Your task to perform on an android device: Open settings on Google Maps Image 0: 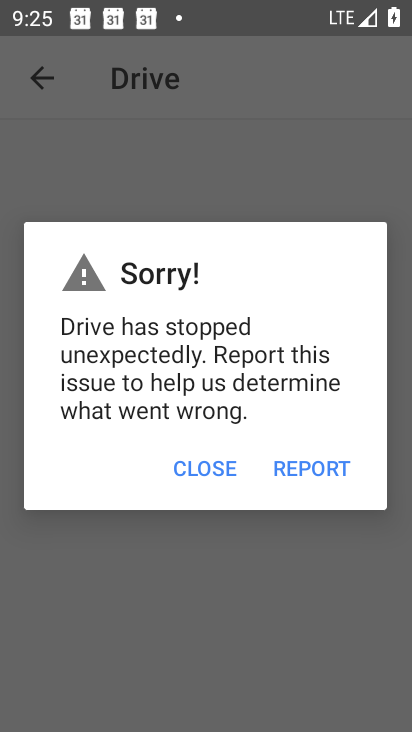
Step 0: press home button
Your task to perform on an android device: Open settings on Google Maps Image 1: 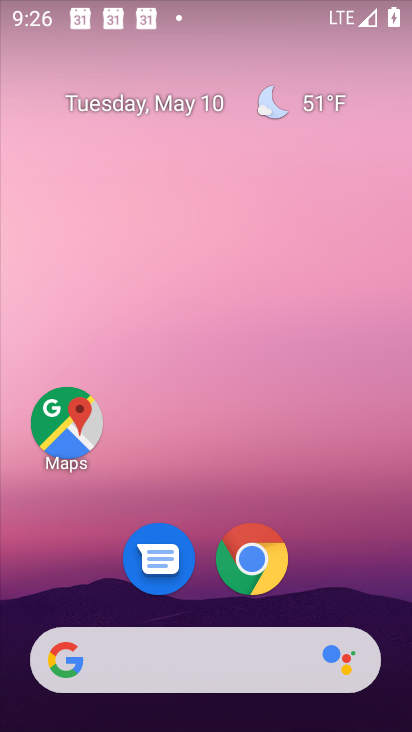
Step 1: click (67, 428)
Your task to perform on an android device: Open settings on Google Maps Image 2: 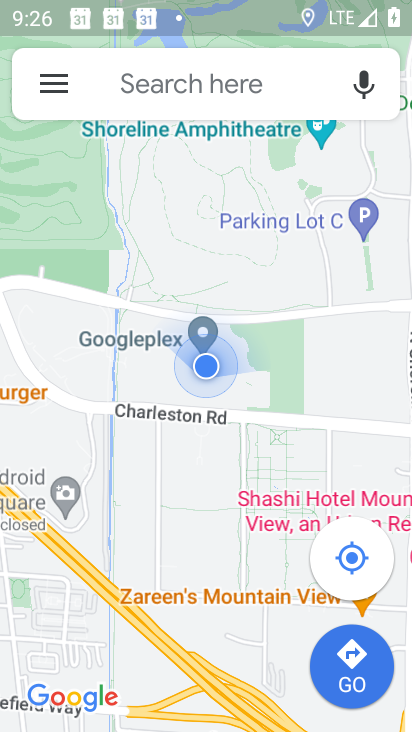
Step 2: task complete